Your task to perform on an android device: Open settings on Google Maps Image 0: 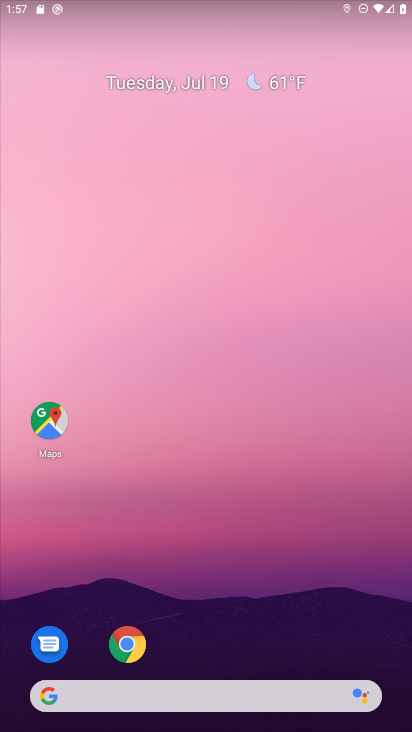
Step 0: drag from (224, 662) to (215, 50)
Your task to perform on an android device: Open settings on Google Maps Image 1: 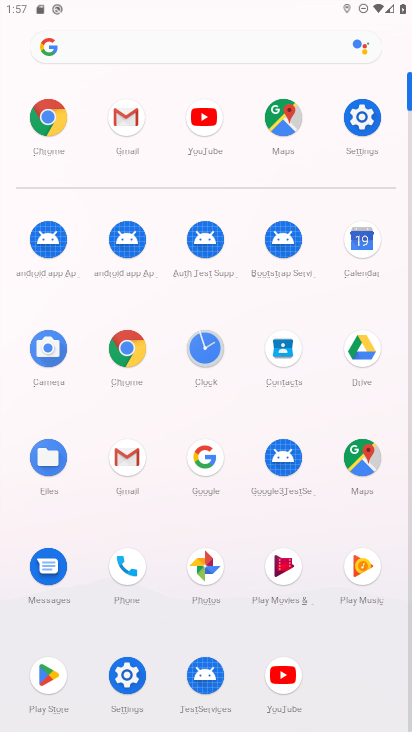
Step 1: click (353, 458)
Your task to perform on an android device: Open settings on Google Maps Image 2: 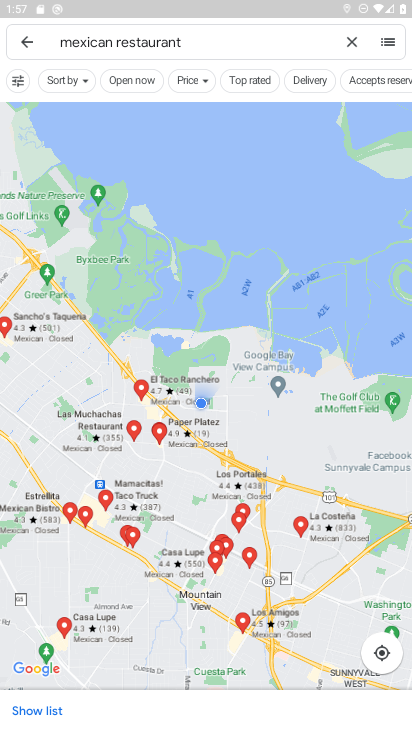
Step 2: click (20, 32)
Your task to perform on an android device: Open settings on Google Maps Image 3: 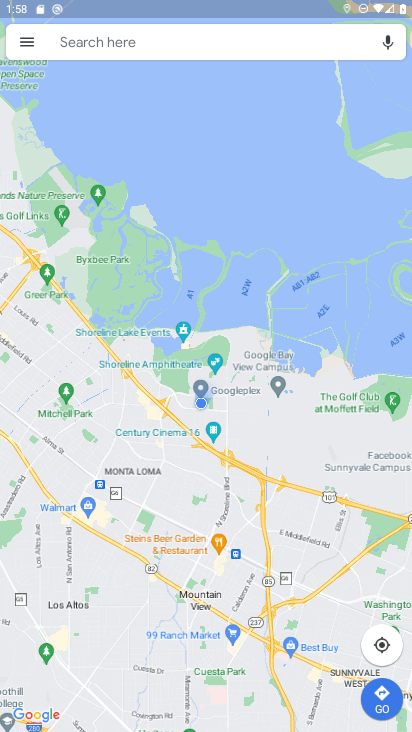
Step 3: click (26, 45)
Your task to perform on an android device: Open settings on Google Maps Image 4: 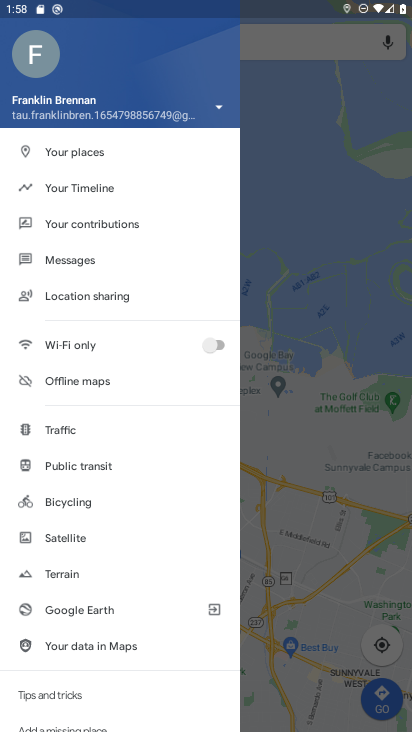
Step 4: drag from (151, 646) to (79, 145)
Your task to perform on an android device: Open settings on Google Maps Image 5: 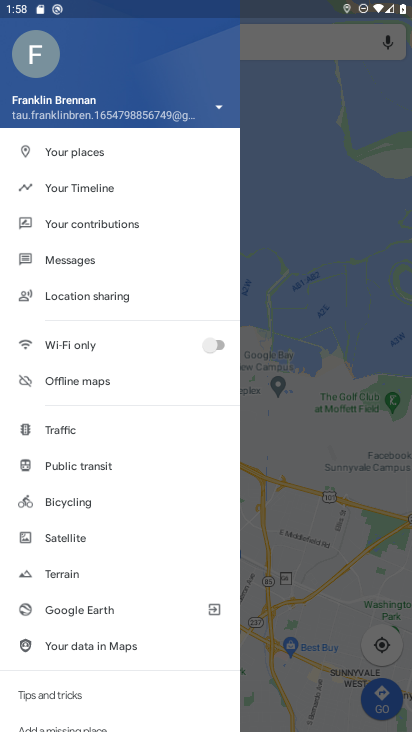
Step 5: drag from (56, 610) to (40, 132)
Your task to perform on an android device: Open settings on Google Maps Image 6: 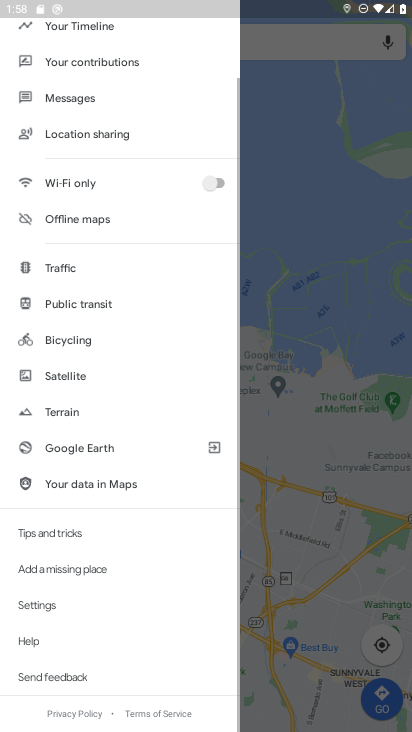
Step 6: click (50, 601)
Your task to perform on an android device: Open settings on Google Maps Image 7: 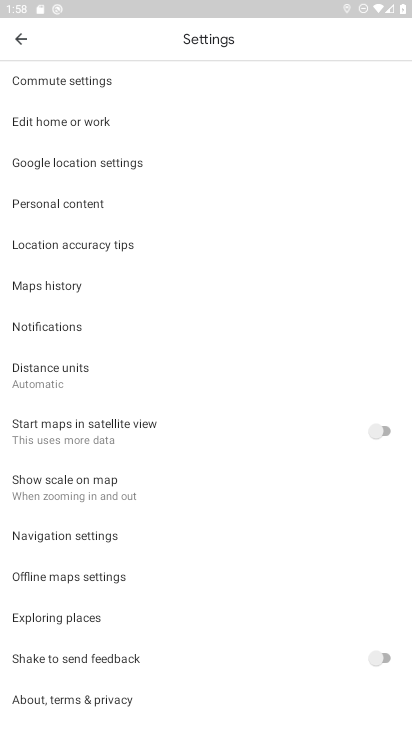
Step 7: task complete